Your task to perform on an android device: toggle priority inbox in the gmail app Image 0: 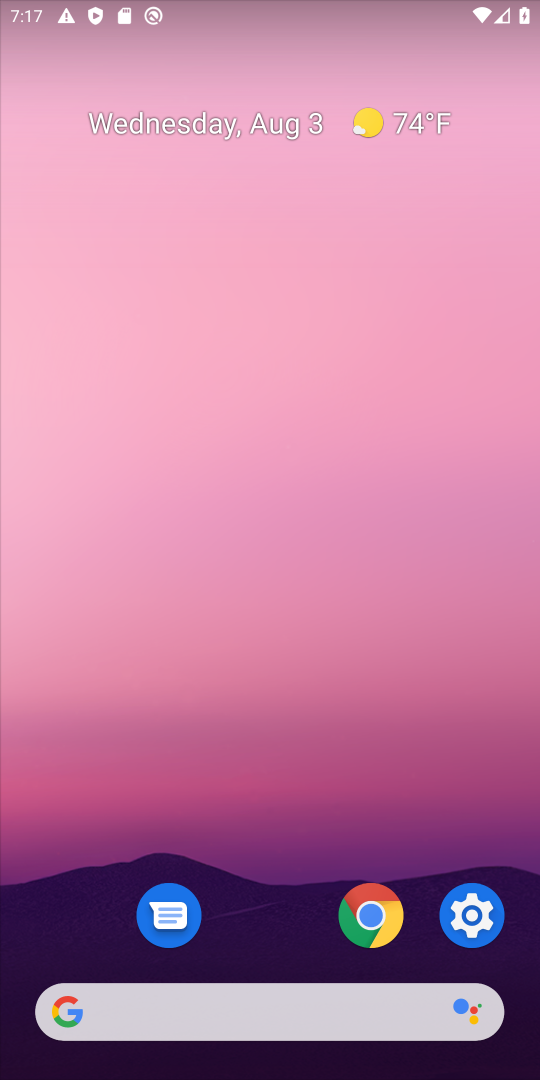
Step 0: drag from (393, 1037) to (177, 185)
Your task to perform on an android device: toggle priority inbox in the gmail app Image 1: 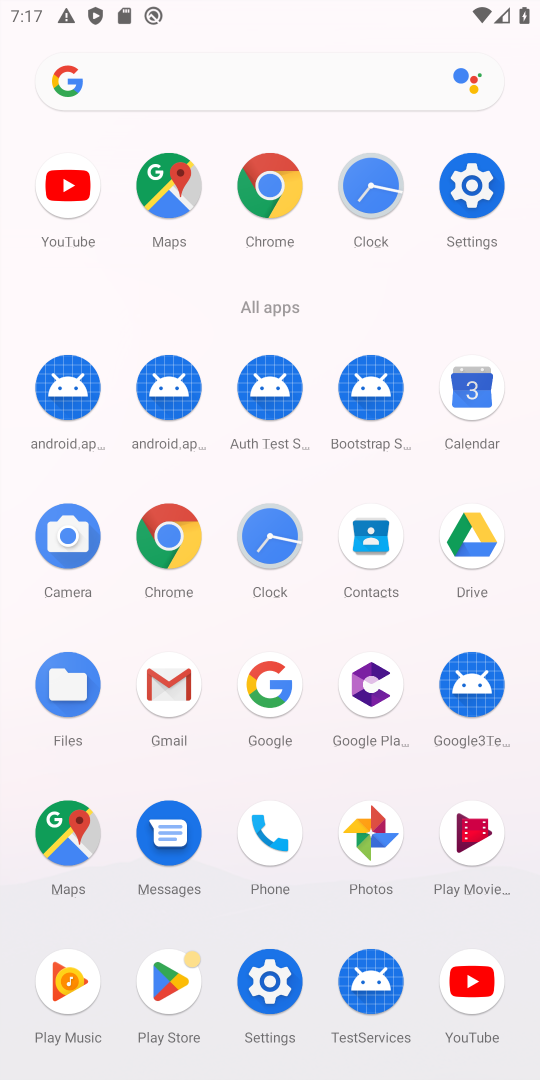
Step 1: click (177, 681)
Your task to perform on an android device: toggle priority inbox in the gmail app Image 2: 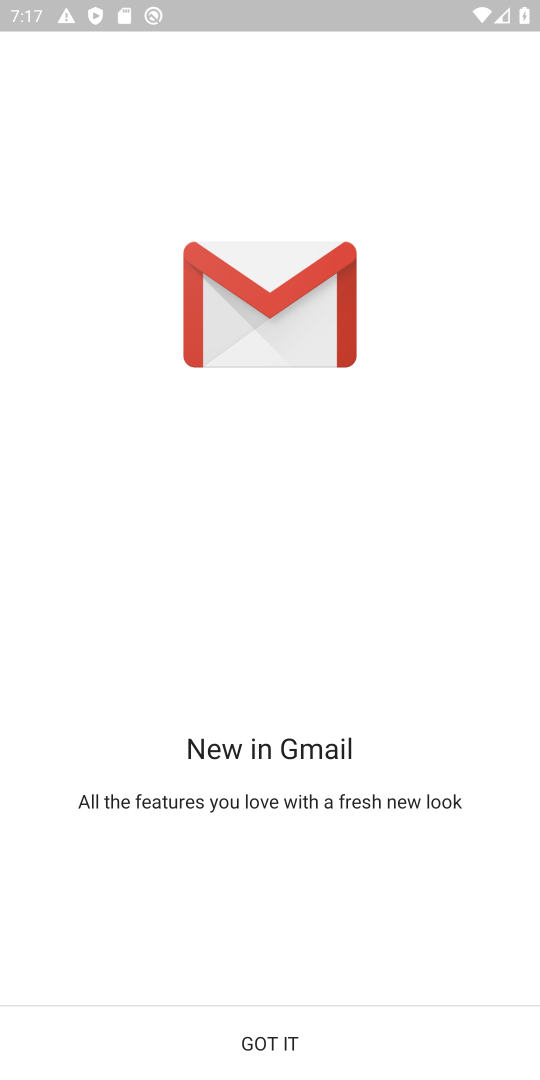
Step 2: click (311, 1027)
Your task to perform on an android device: toggle priority inbox in the gmail app Image 3: 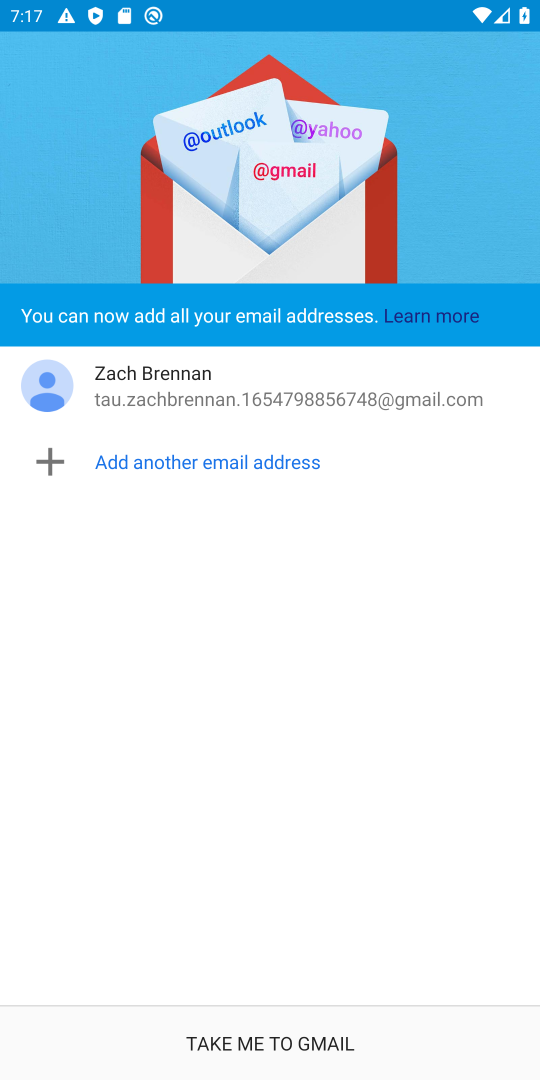
Step 3: click (298, 1022)
Your task to perform on an android device: toggle priority inbox in the gmail app Image 4: 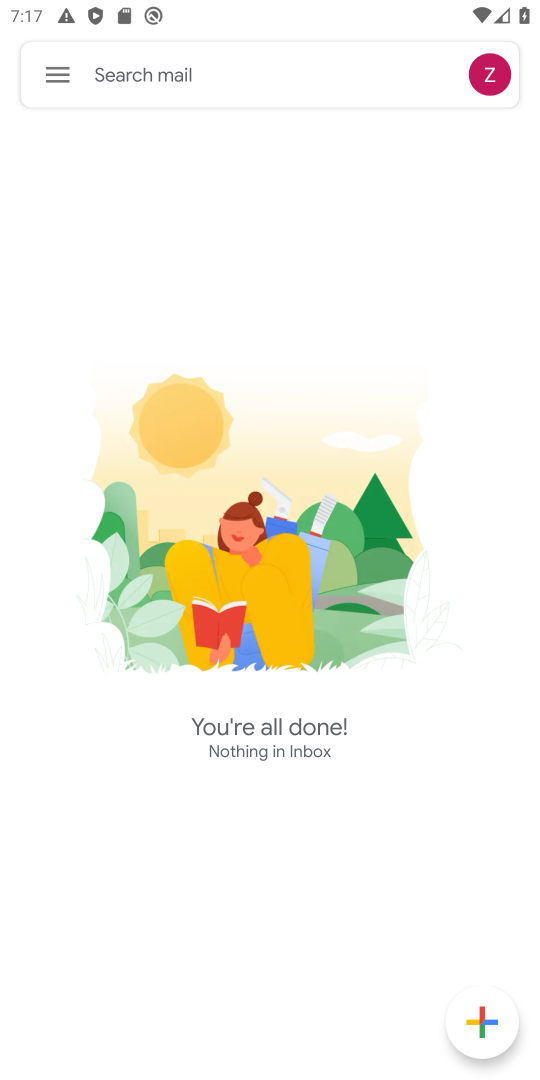
Step 4: click (66, 79)
Your task to perform on an android device: toggle priority inbox in the gmail app Image 5: 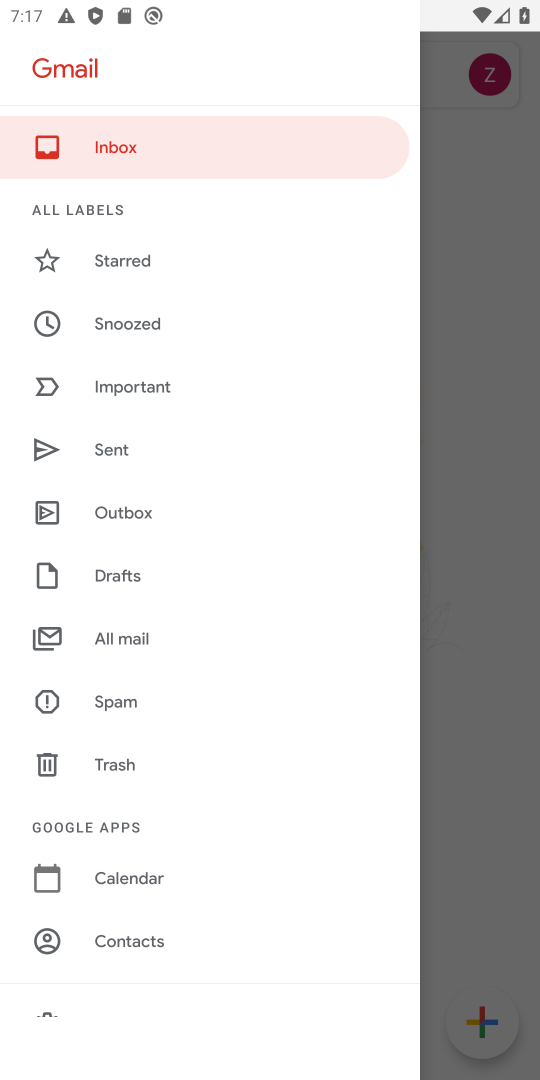
Step 5: click (103, 1008)
Your task to perform on an android device: toggle priority inbox in the gmail app Image 6: 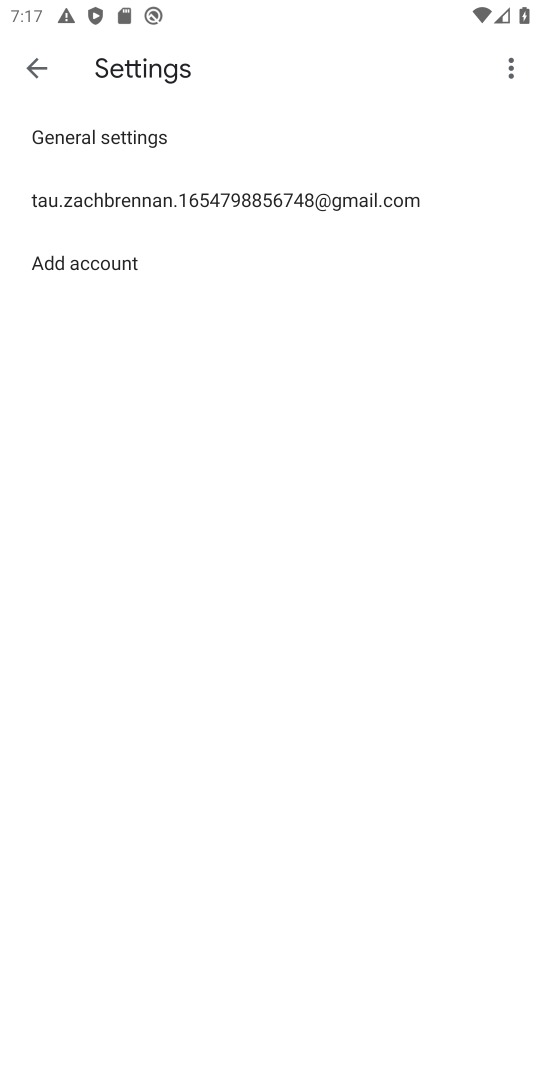
Step 6: click (115, 205)
Your task to perform on an android device: toggle priority inbox in the gmail app Image 7: 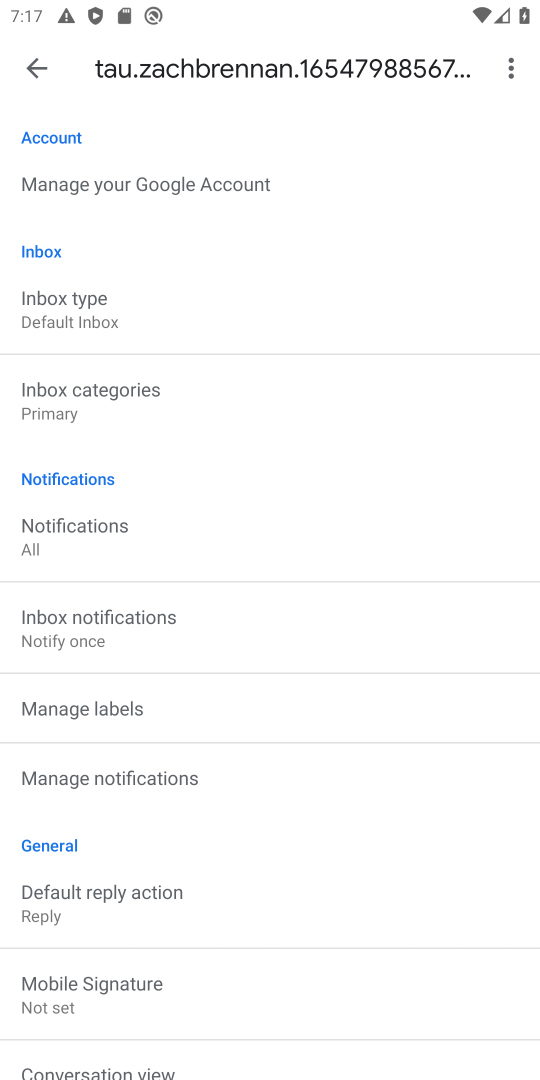
Step 7: click (66, 318)
Your task to perform on an android device: toggle priority inbox in the gmail app Image 8: 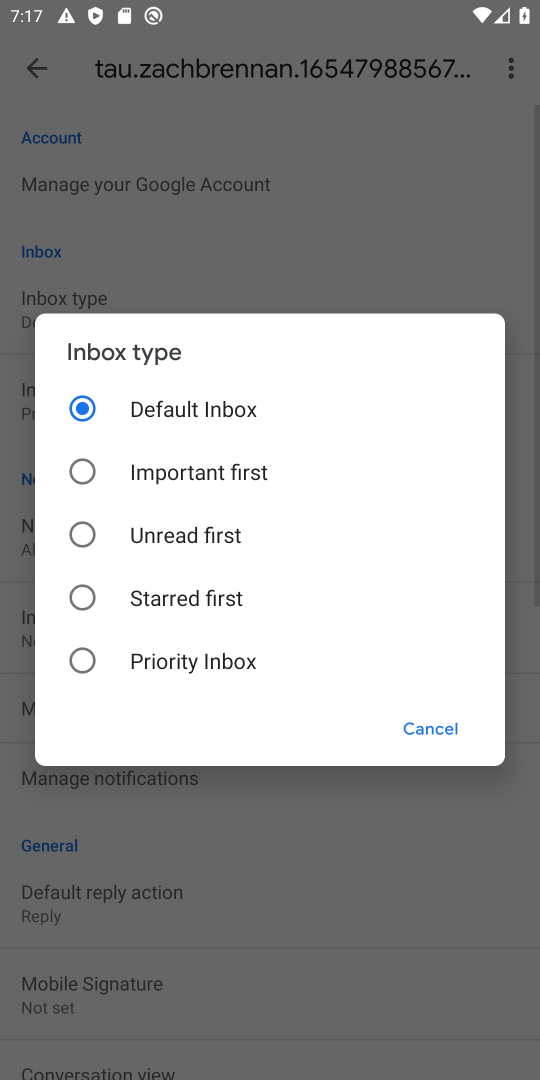
Step 8: click (201, 658)
Your task to perform on an android device: toggle priority inbox in the gmail app Image 9: 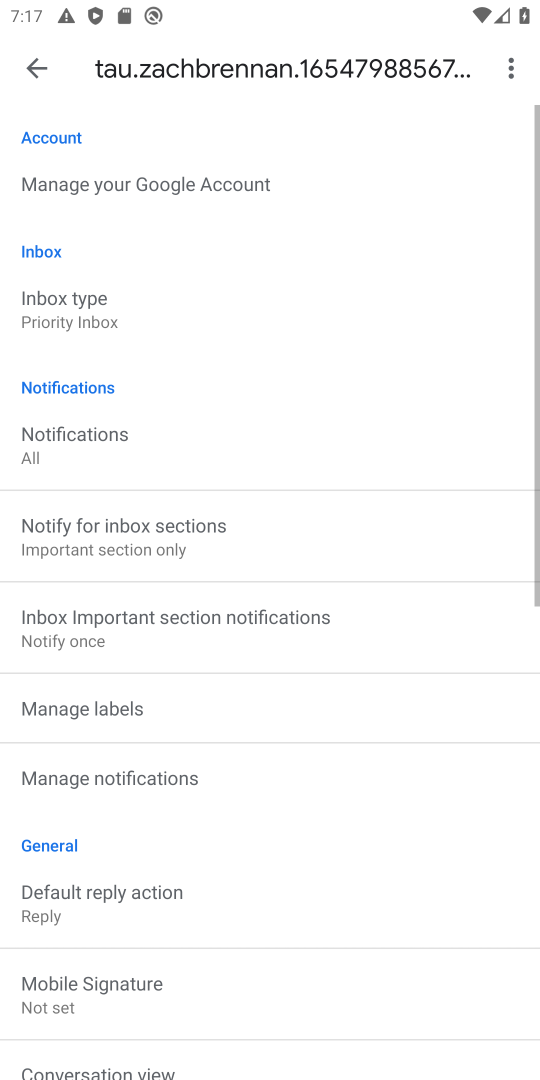
Step 9: click (124, 307)
Your task to perform on an android device: toggle priority inbox in the gmail app Image 10: 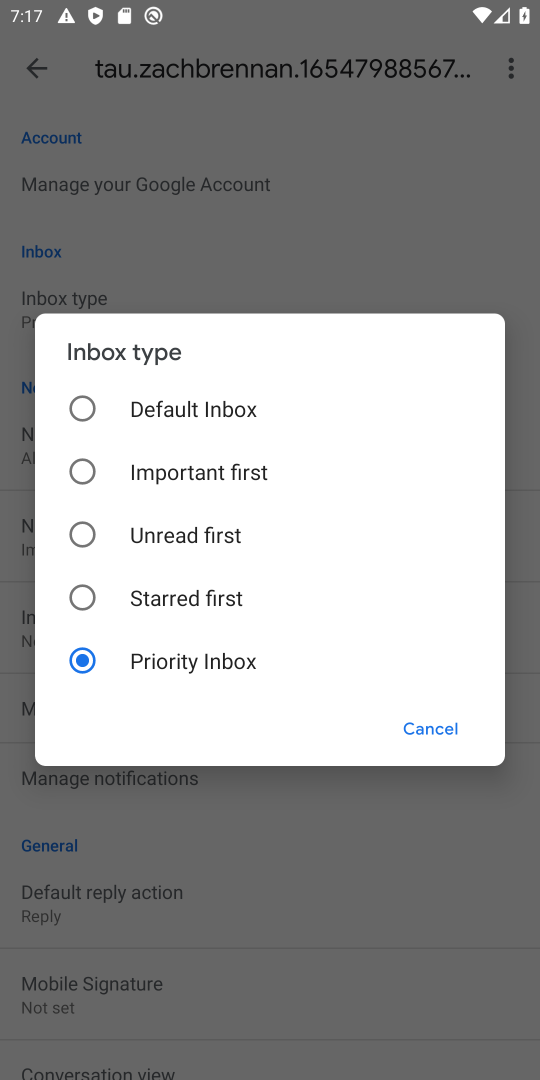
Step 10: task complete